Your task to perform on an android device: Go to ESPN.com Image 0: 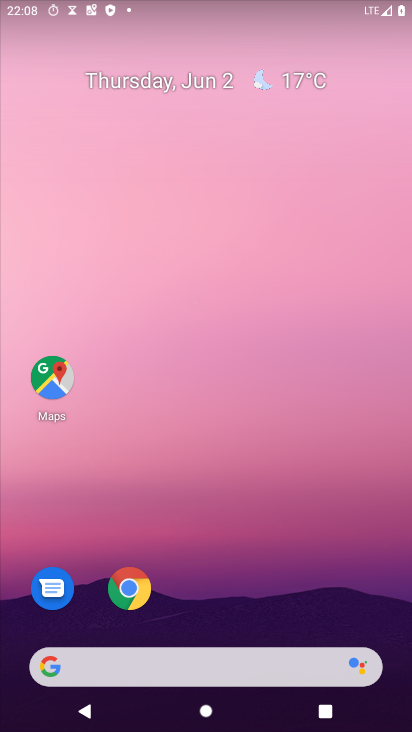
Step 0: click (131, 579)
Your task to perform on an android device: Go to ESPN.com Image 1: 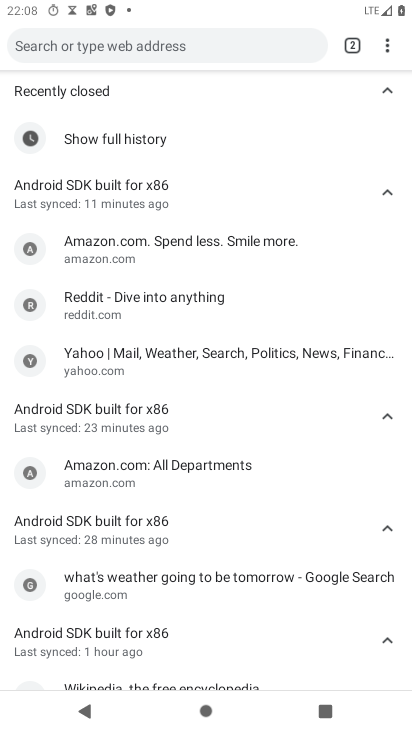
Step 1: click (345, 42)
Your task to perform on an android device: Go to ESPN.com Image 2: 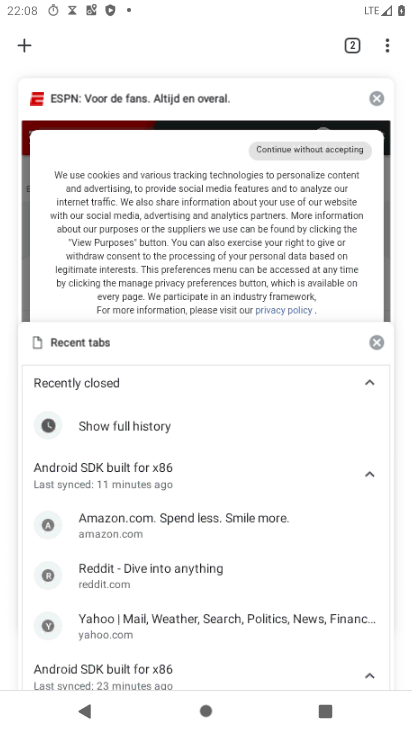
Step 2: click (107, 100)
Your task to perform on an android device: Go to ESPN.com Image 3: 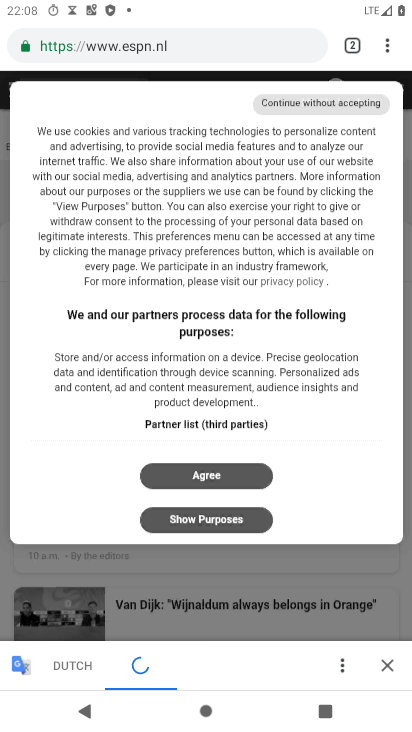
Step 3: task complete